Your task to perform on an android device: turn on javascript in the chrome app Image 0: 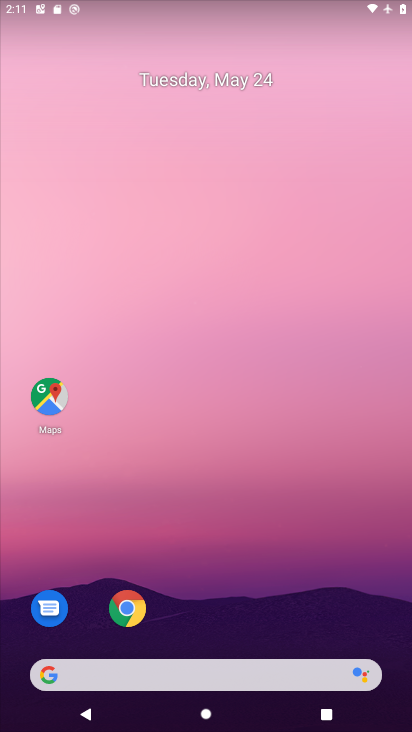
Step 0: drag from (261, 592) to (228, 96)
Your task to perform on an android device: turn on javascript in the chrome app Image 1: 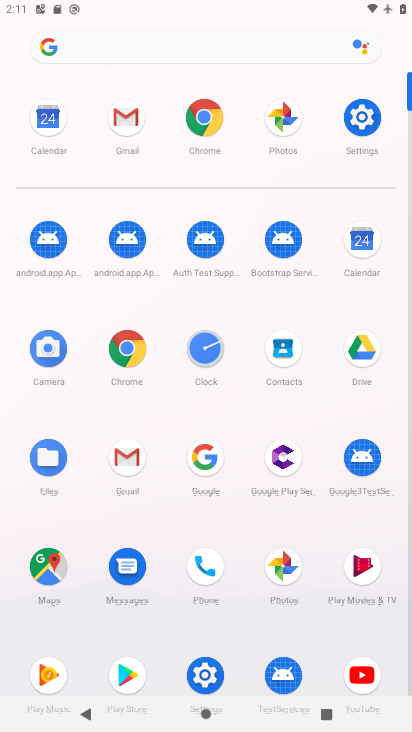
Step 1: click (200, 120)
Your task to perform on an android device: turn on javascript in the chrome app Image 2: 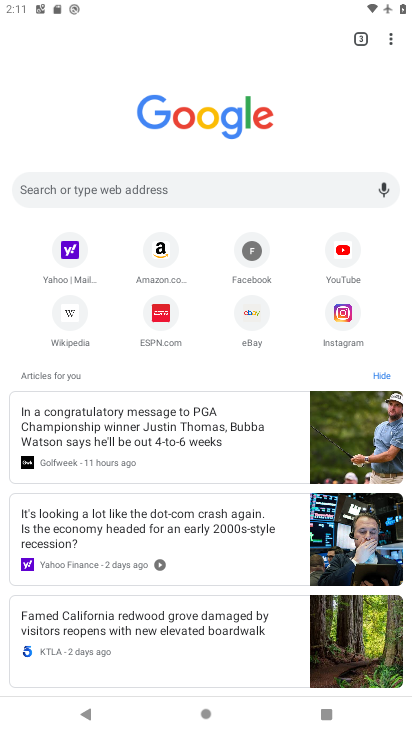
Step 2: click (394, 55)
Your task to perform on an android device: turn on javascript in the chrome app Image 3: 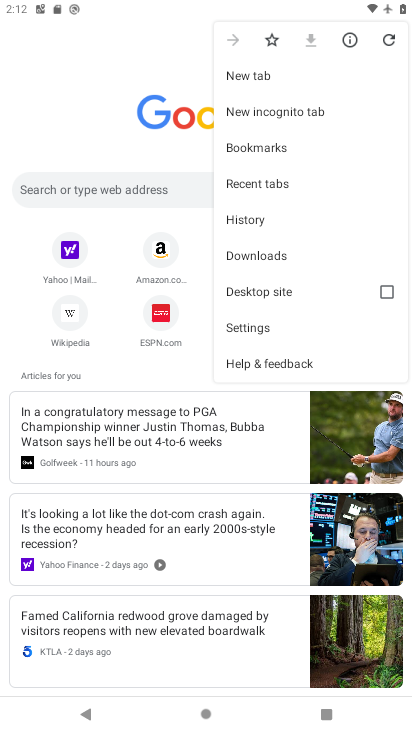
Step 3: click (282, 331)
Your task to perform on an android device: turn on javascript in the chrome app Image 4: 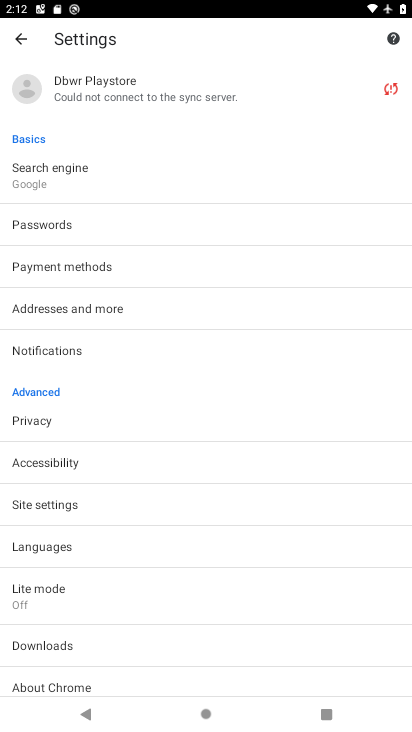
Step 4: click (153, 515)
Your task to perform on an android device: turn on javascript in the chrome app Image 5: 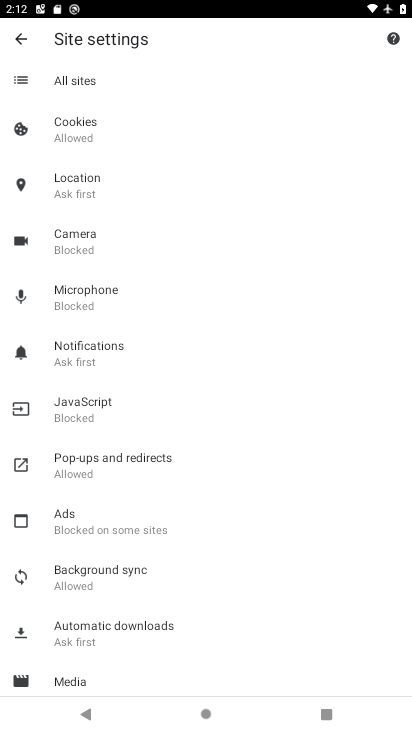
Step 5: click (228, 409)
Your task to perform on an android device: turn on javascript in the chrome app Image 6: 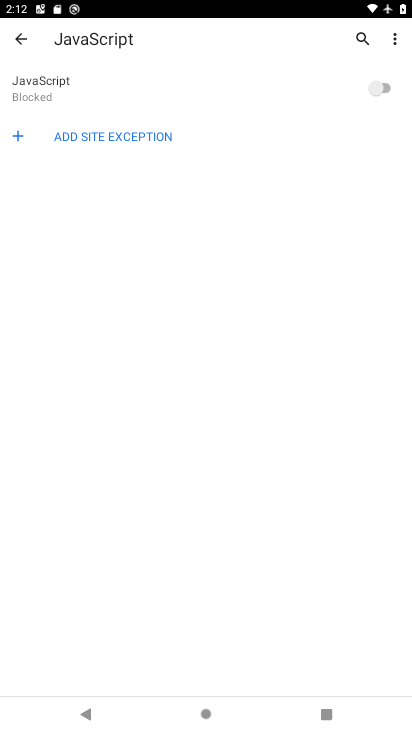
Step 6: click (383, 83)
Your task to perform on an android device: turn on javascript in the chrome app Image 7: 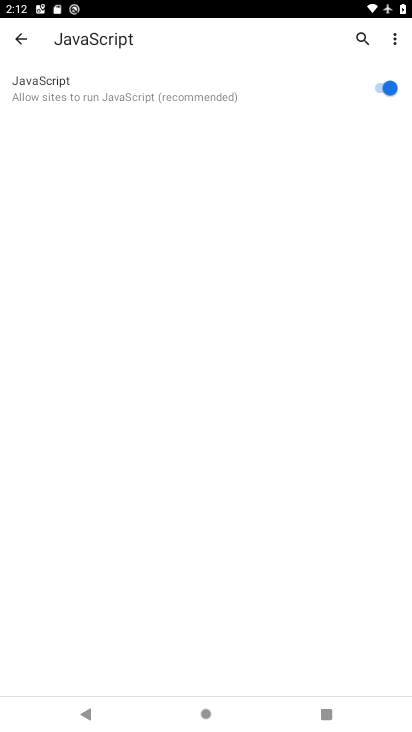
Step 7: task complete